Your task to perform on an android device: Go to location settings Image 0: 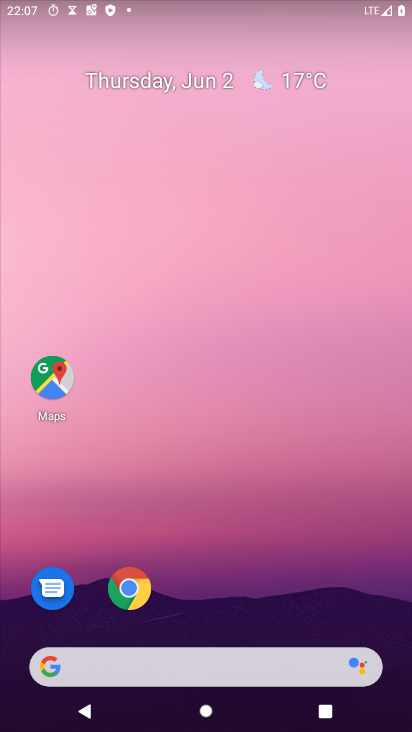
Step 0: drag from (228, 563) to (231, 107)
Your task to perform on an android device: Go to location settings Image 1: 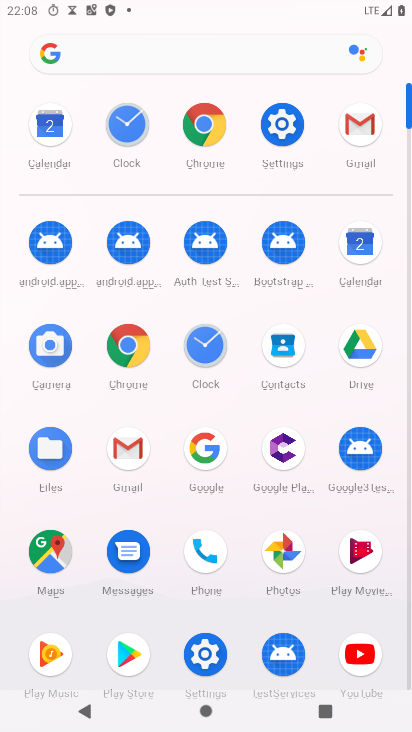
Step 1: click (283, 125)
Your task to perform on an android device: Go to location settings Image 2: 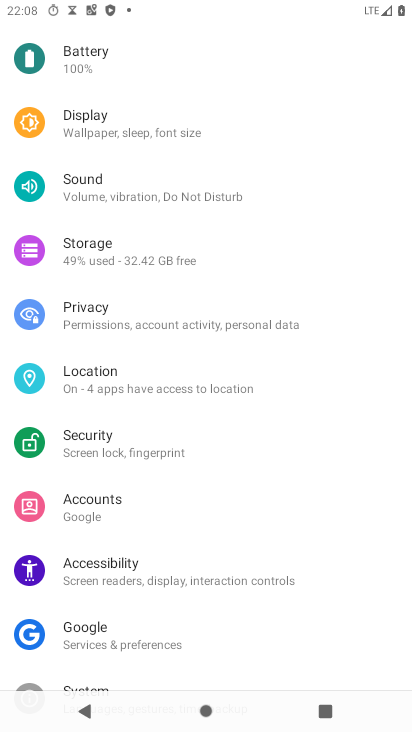
Step 2: click (95, 386)
Your task to perform on an android device: Go to location settings Image 3: 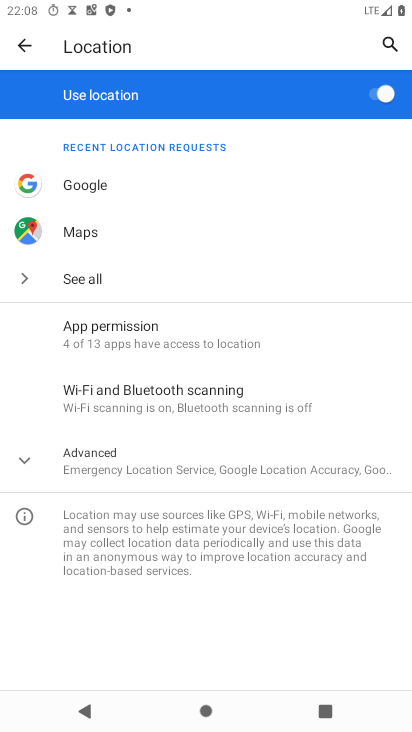
Step 3: task complete